Your task to perform on an android device: Open battery settings Image 0: 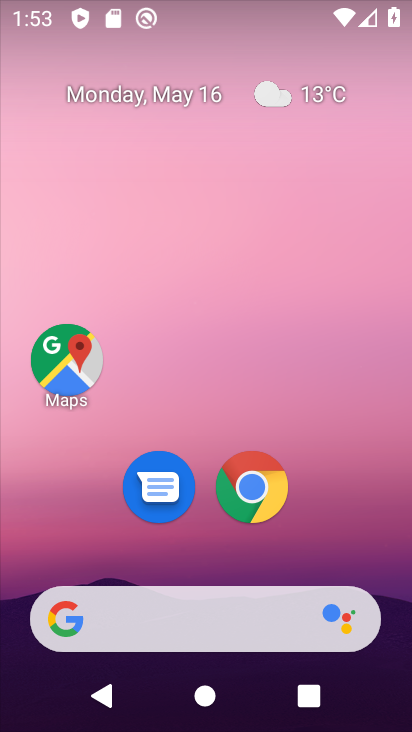
Step 0: drag from (330, 420) to (139, 111)
Your task to perform on an android device: Open battery settings Image 1: 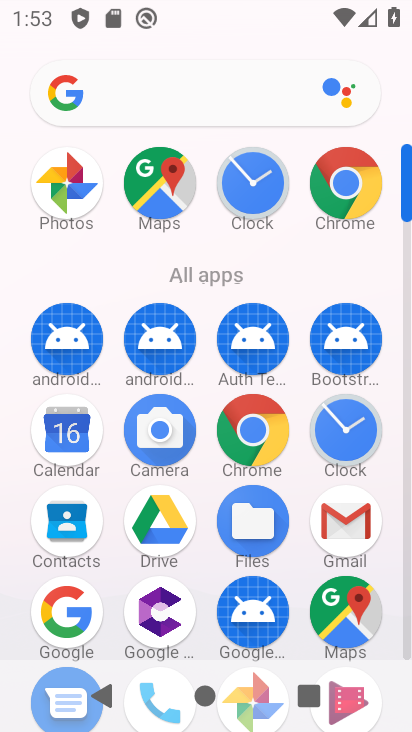
Step 1: drag from (209, 630) to (203, 269)
Your task to perform on an android device: Open battery settings Image 2: 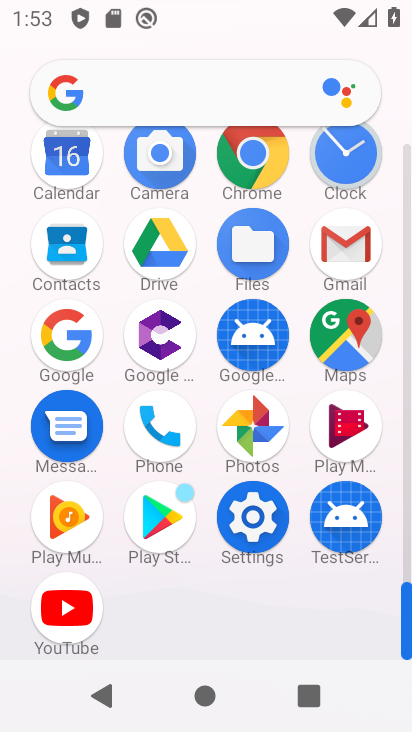
Step 2: click (254, 588)
Your task to perform on an android device: Open battery settings Image 3: 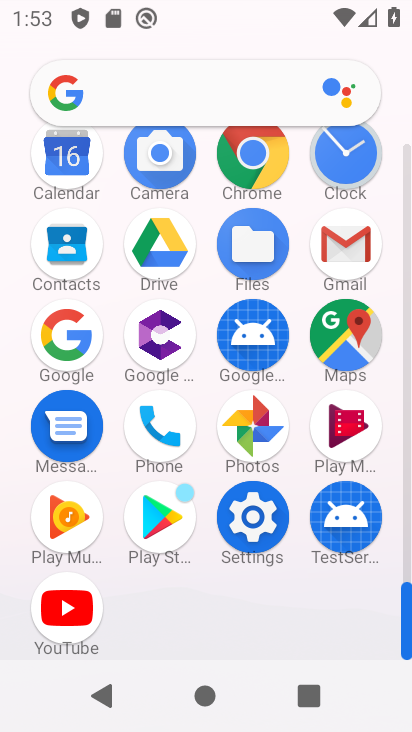
Step 3: click (248, 528)
Your task to perform on an android device: Open battery settings Image 4: 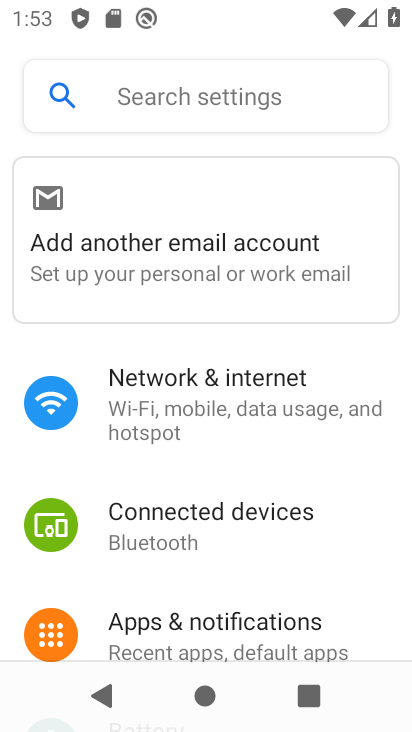
Step 4: drag from (188, 638) to (157, 294)
Your task to perform on an android device: Open battery settings Image 5: 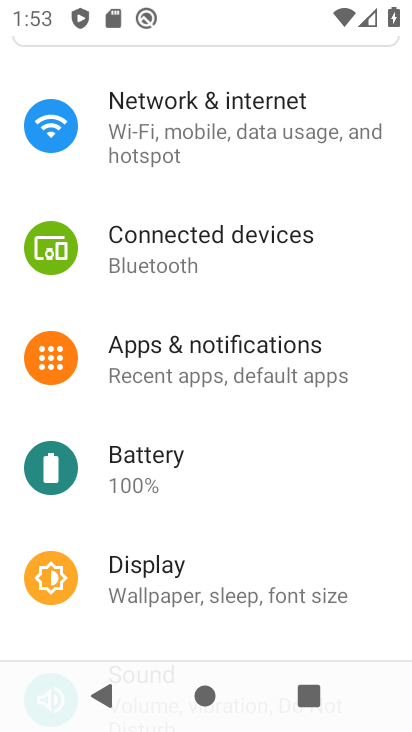
Step 5: click (139, 465)
Your task to perform on an android device: Open battery settings Image 6: 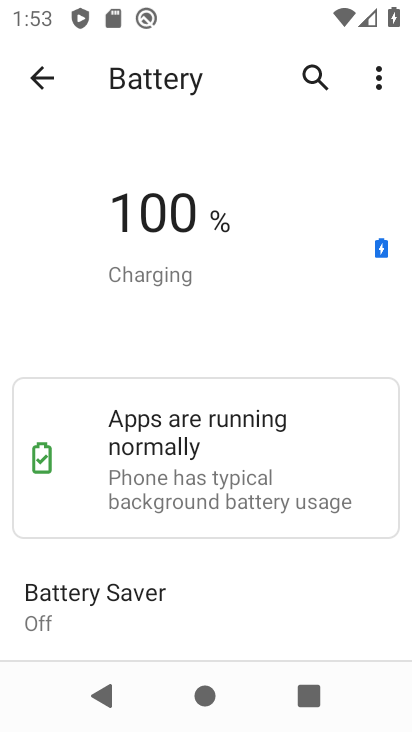
Step 6: task complete